Your task to perform on an android device: Go to settings Image 0: 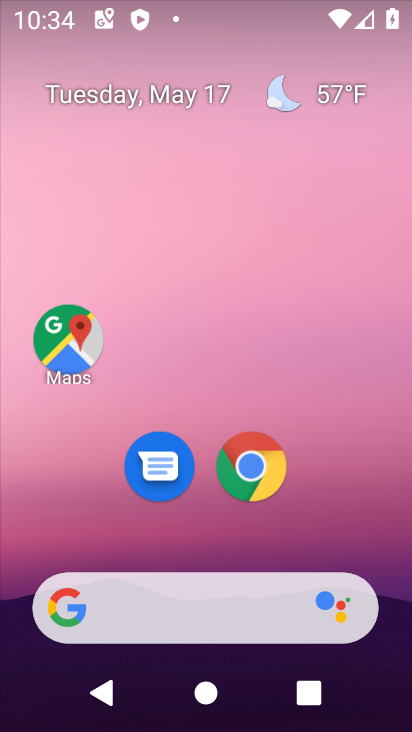
Step 0: drag from (93, 569) to (189, 73)
Your task to perform on an android device: Go to settings Image 1: 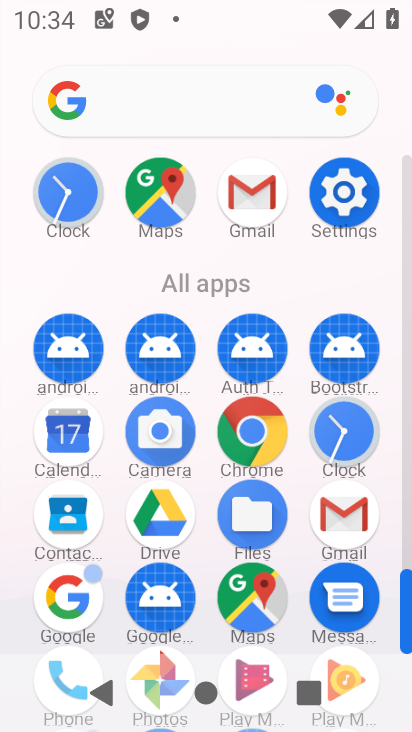
Step 1: drag from (220, 639) to (293, 381)
Your task to perform on an android device: Go to settings Image 2: 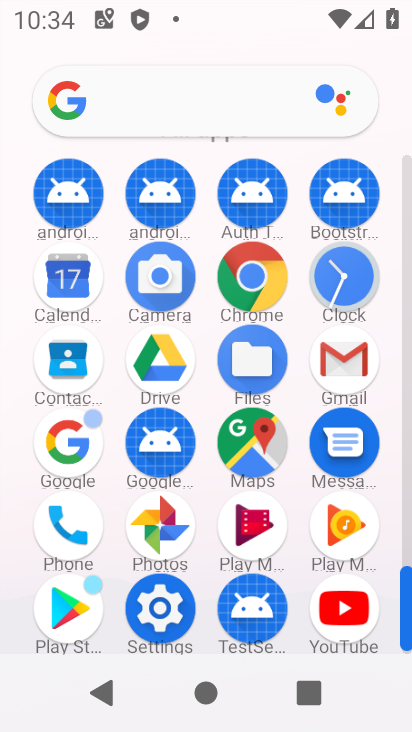
Step 2: click (163, 617)
Your task to perform on an android device: Go to settings Image 3: 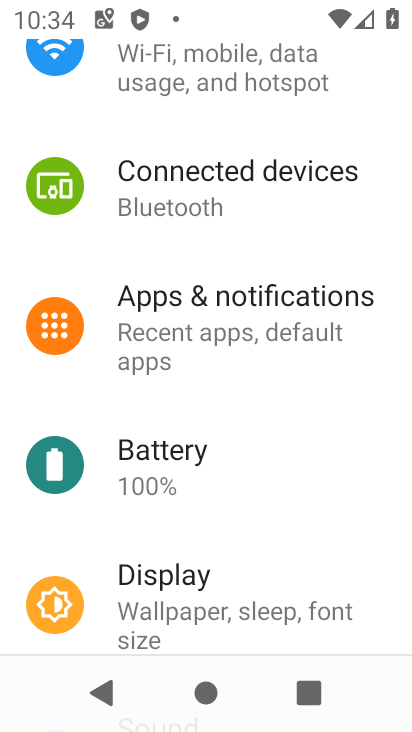
Step 3: task complete